Your task to perform on an android device: turn off location Image 0: 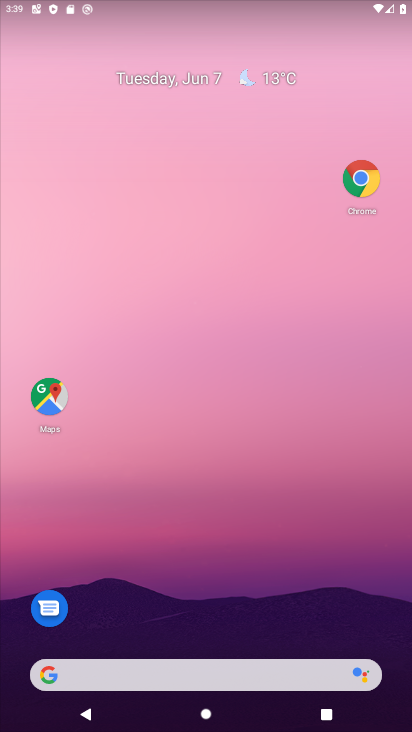
Step 0: drag from (125, 623) to (213, 127)
Your task to perform on an android device: turn off location Image 1: 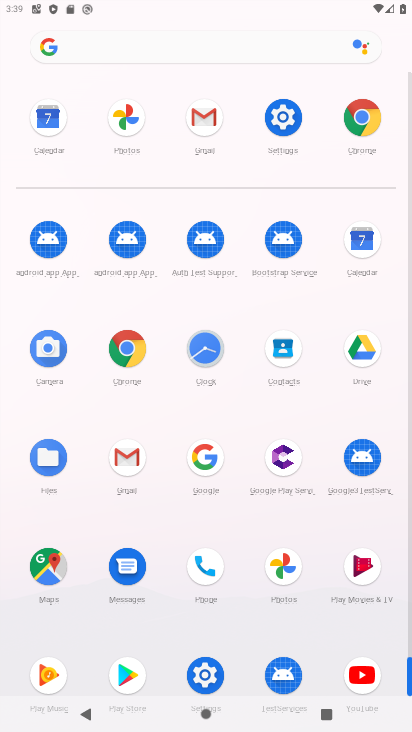
Step 1: click (200, 680)
Your task to perform on an android device: turn off location Image 2: 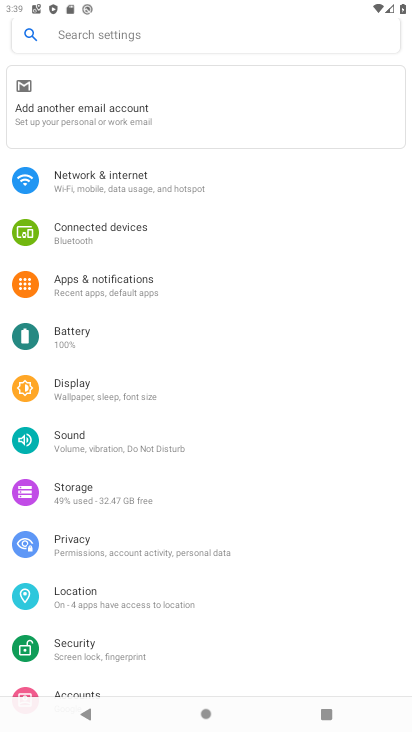
Step 2: click (91, 604)
Your task to perform on an android device: turn off location Image 3: 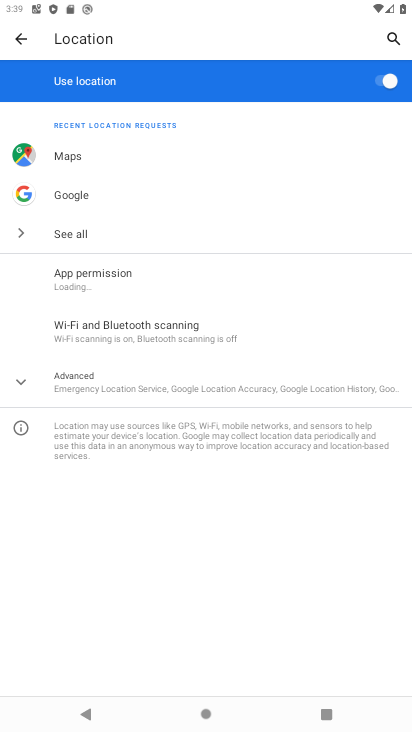
Step 3: click (380, 81)
Your task to perform on an android device: turn off location Image 4: 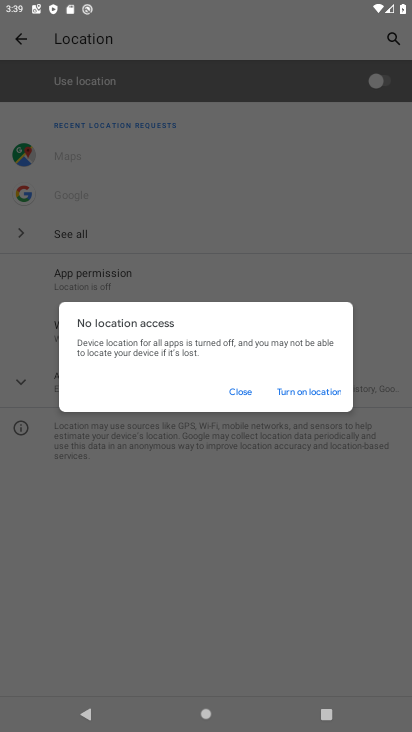
Step 4: task complete